Your task to perform on an android device: open sync settings in chrome Image 0: 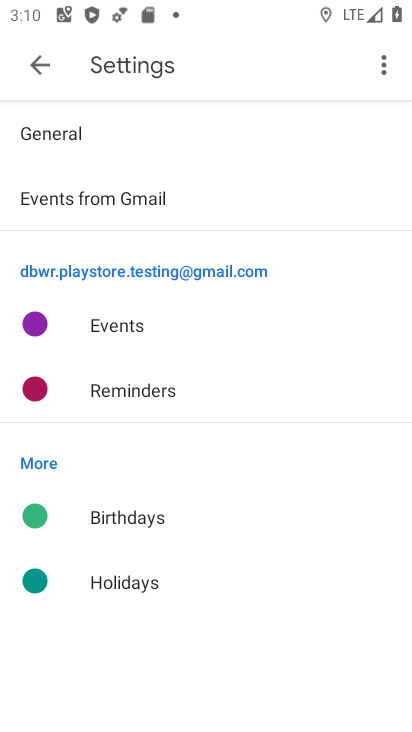
Step 0: press home button
Your task to perform on an android device: open sync settings in chrome Image 1: 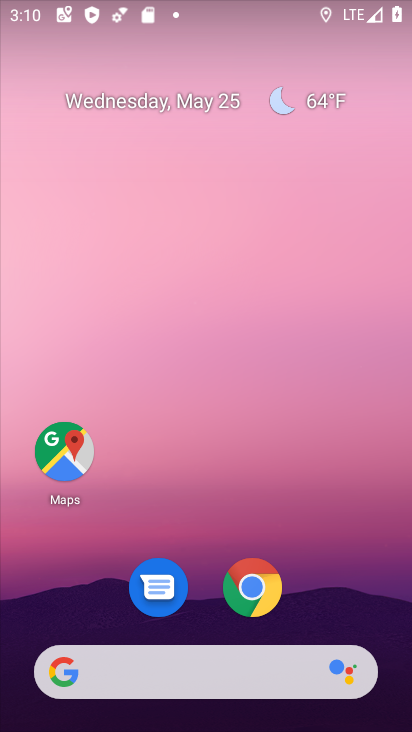
Step 1: drag from (363, 616) to (270, 297)
Your task to perform on an android device: open sync settings in chrome Image 2: 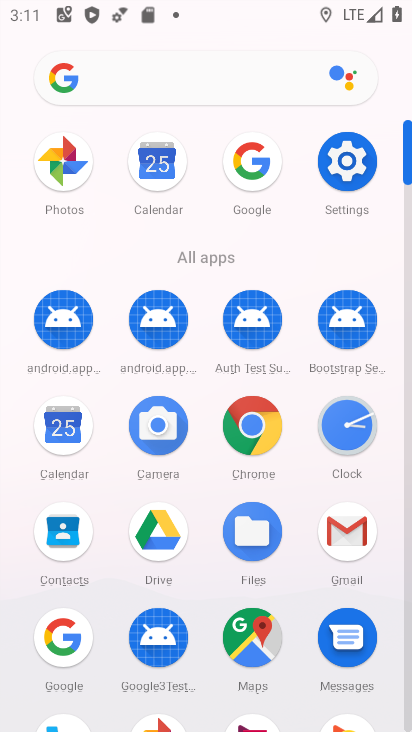
Step 2: click (276, 433)
Your task to perform on an android device: open sync settings in chrome Image 3: 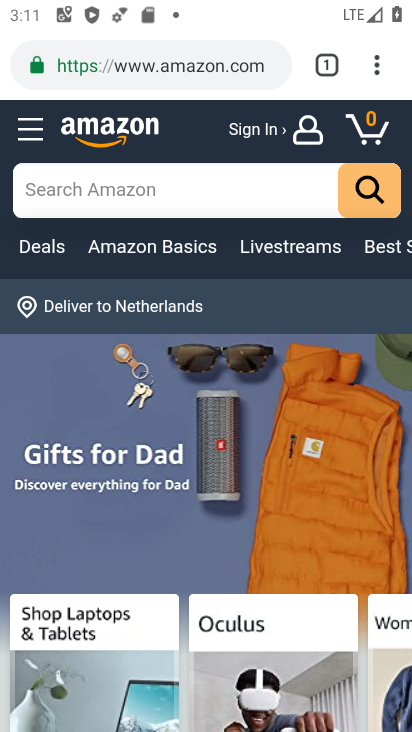
Step 3: click (377, 66)
Your task to perform on an android device: open sync settings in chrome Image 4: 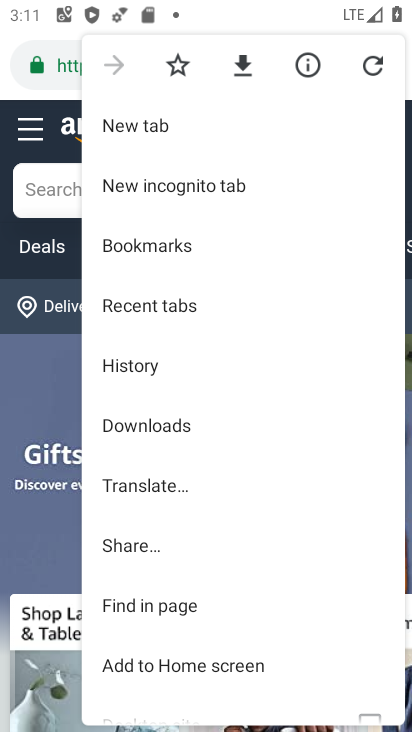
Step 4: drag from (250, 659) to (239, 377)
Your task to perform on an android device: open sync settings in chrome Image 5: 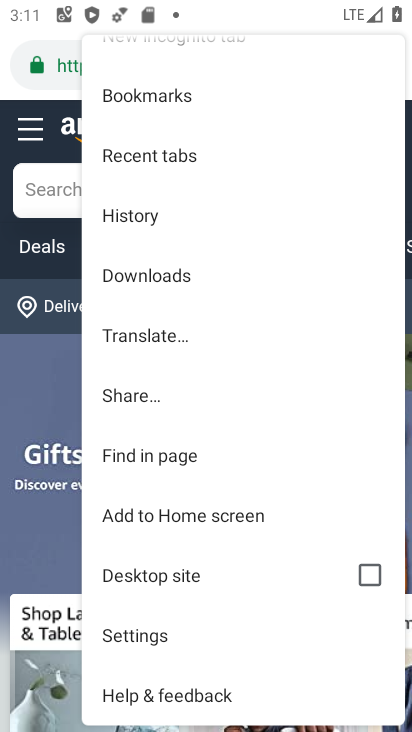
Step 5: click (160, 625)
Your task to perform on an android device: open sync settings in chrome Image 6: 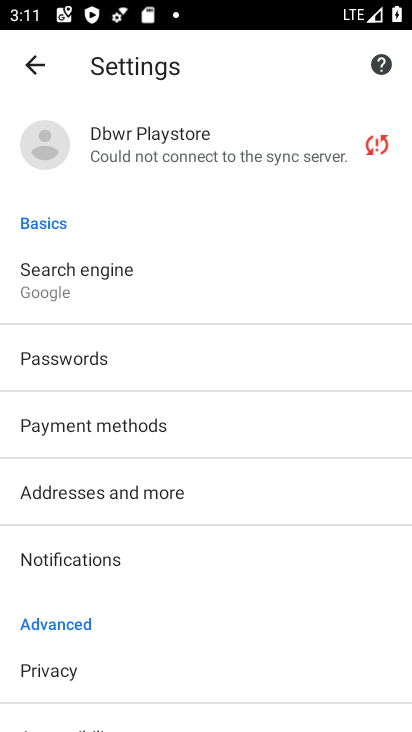
Step 6: click (245, 150)
Your task to perform on an android device: open sync settings in chrome Image 7: 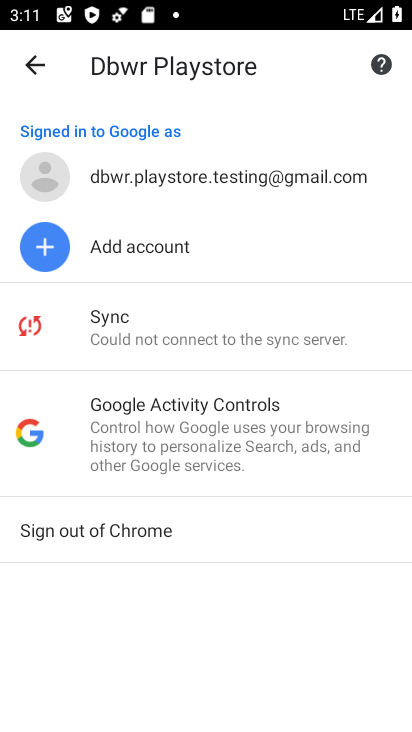
Step 7: click (357, 326)
Your task to perform on an android device: open sync settings in chrome Image 8: 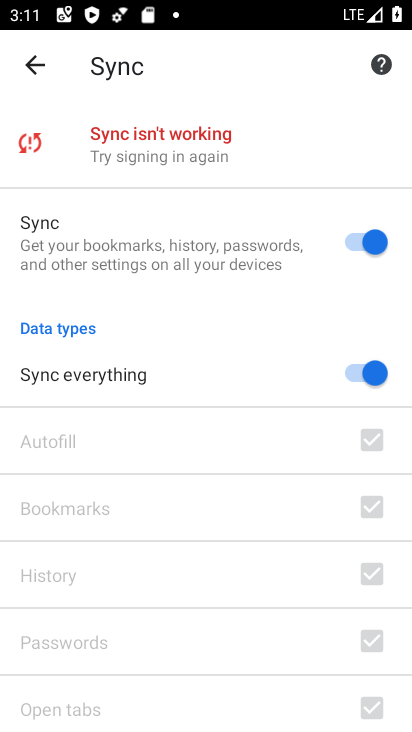
Step 8: task complete